Your task to perform on an android device: delete browsing data in the chrome app Image 0: 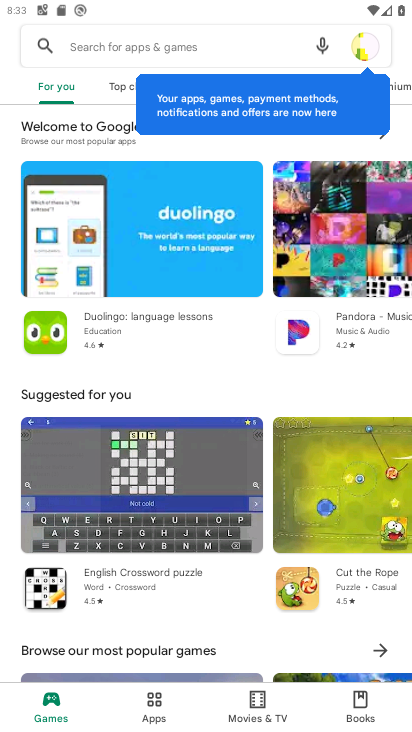
Step 0: press home button
Your task to perform on an android device: delete browsing data in the chrome app Image 1: 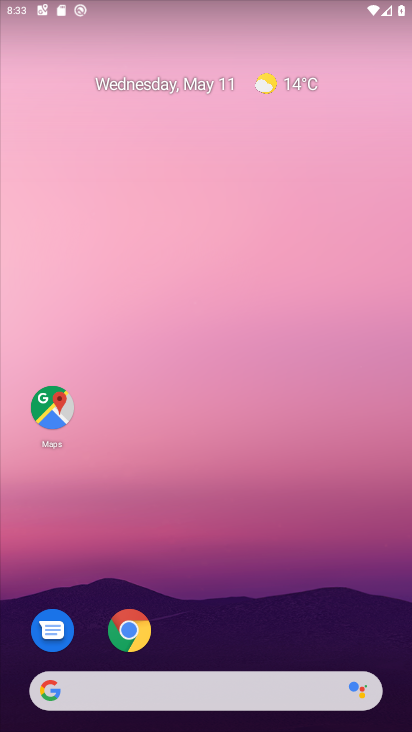
Step 1: click (135, 625)
Your task to perform on an android device: delete browsing data in the chrome app Image 2: 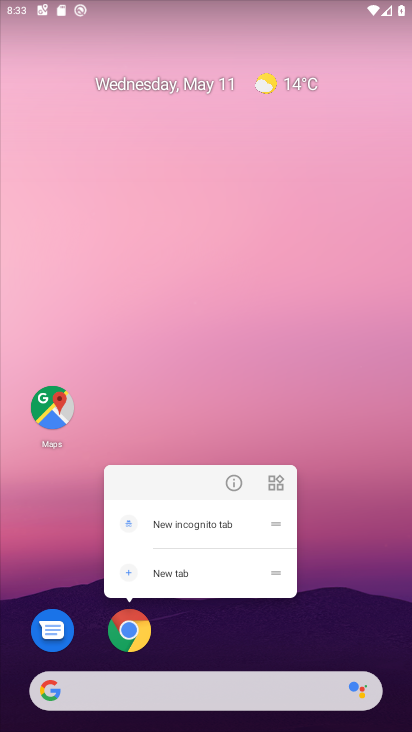
Step 2: click (124, 635)
Your task to perform on an android device: delete browsing data in the chrome app Image 3: 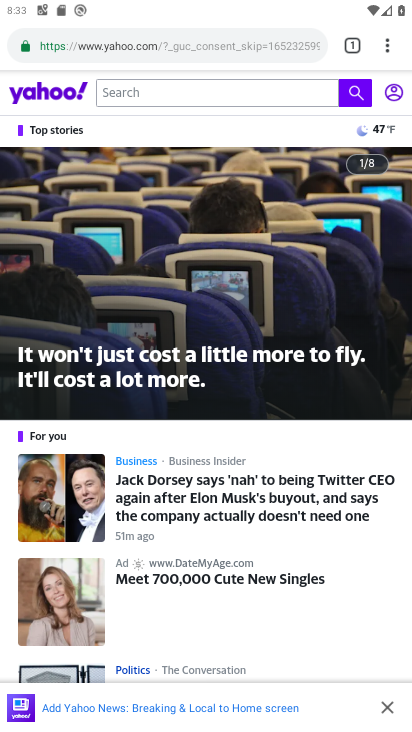
Step 3: click (380, 40)
Your task to perform on an android device: delete browsing data in the chrome app Image 4: 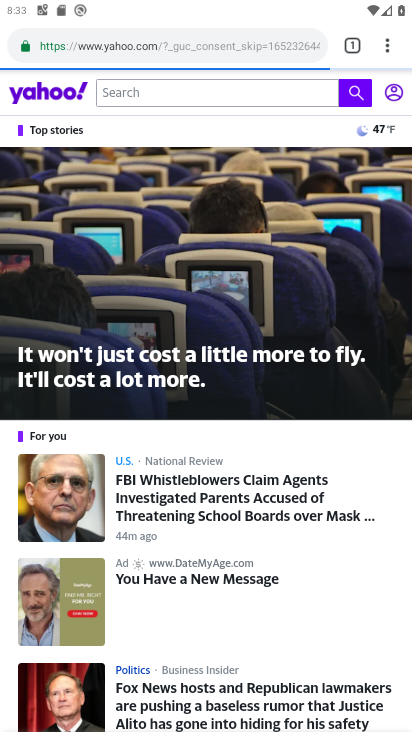
Step 4: click (390, 41)
Your task to perform on an android device: delete browsing data in the chrome app Image 5: 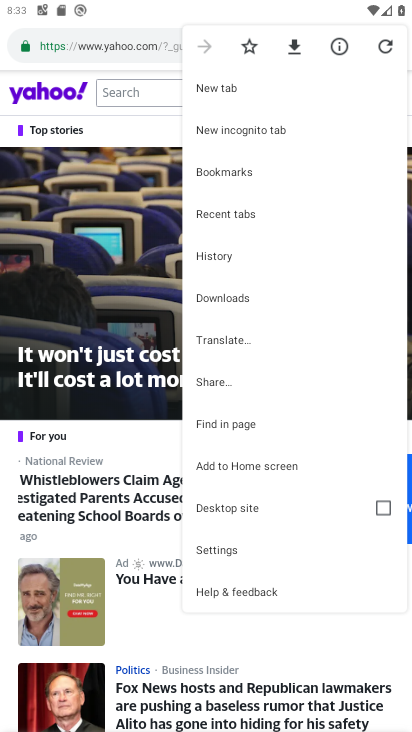
Step 5: click (229, 561)
Your task to perform on an android device: delete browsing data in the chrome app Image 6: 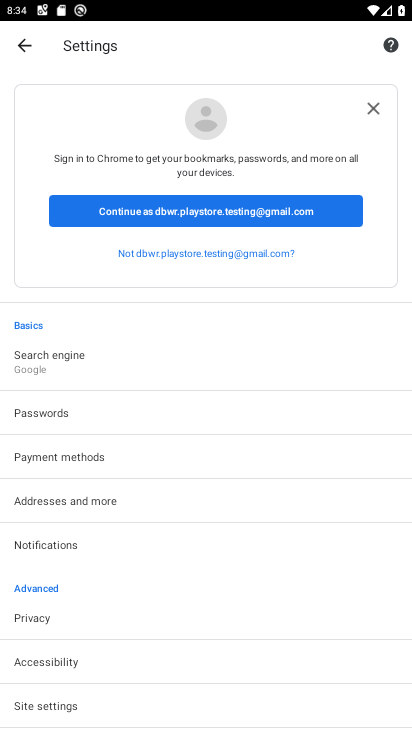
Step 6: click (371, 113)
Your task to perform on an android device: delete browsing data in the chrome app Image 7: 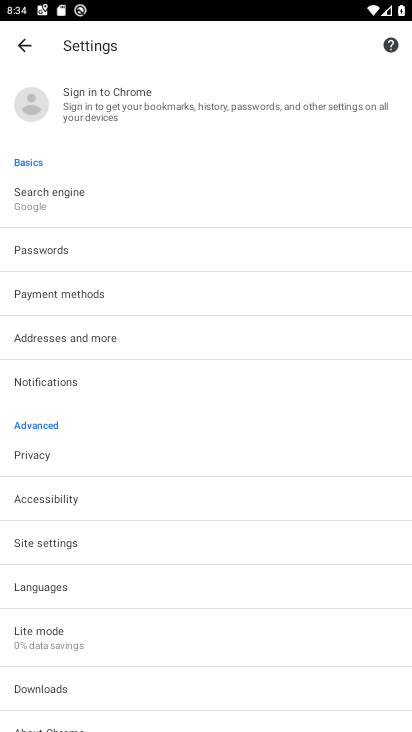
Step 7: click (45, 457)
Your task to perform on an android device: delete browsing data in the chrome app Image 8: 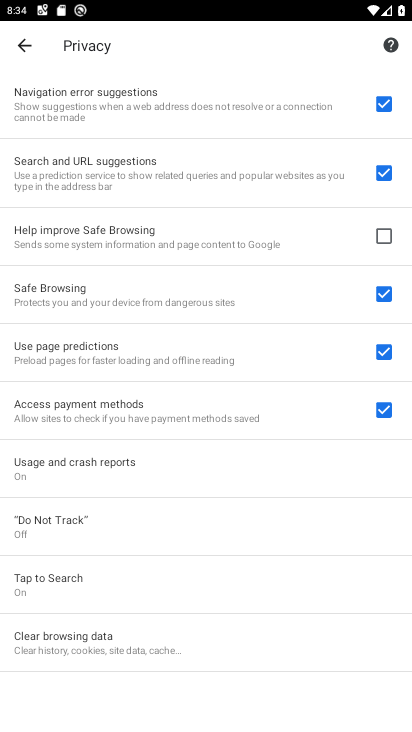
Step 8: click (118, 650)
Your task to perform on an android device: delete browsing data in the chrome app Image 9: 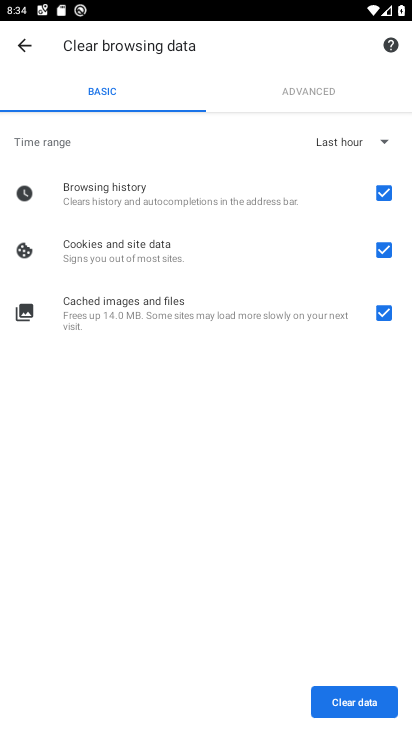
Step 9: click (372, 707)
Your task to perform on an android device: delete browsing data in the chrome app Image 10: 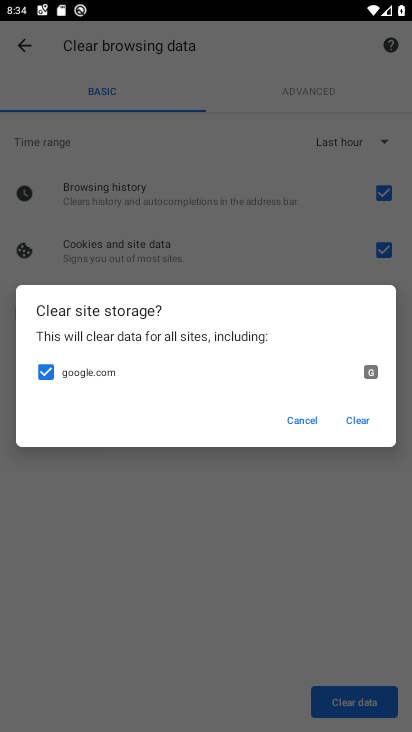
Step 10: click (351, 425)
Your task to perform on an android device: delete browsing data in the chrome app Image 11: 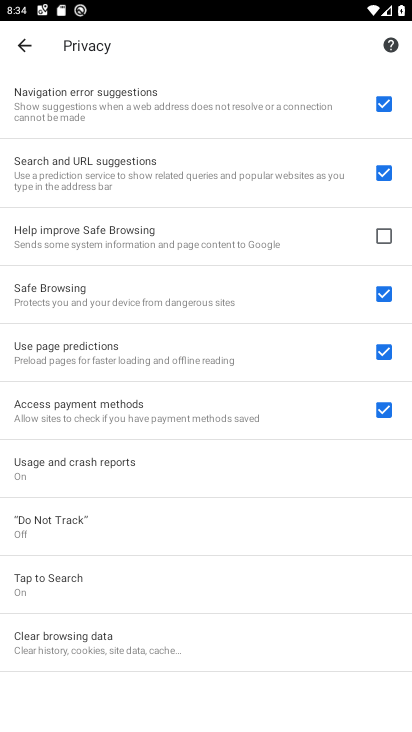
Step 11: task complete